Your task to perform on an android device: install app "DoorDash - Food Delivery" Image 0: 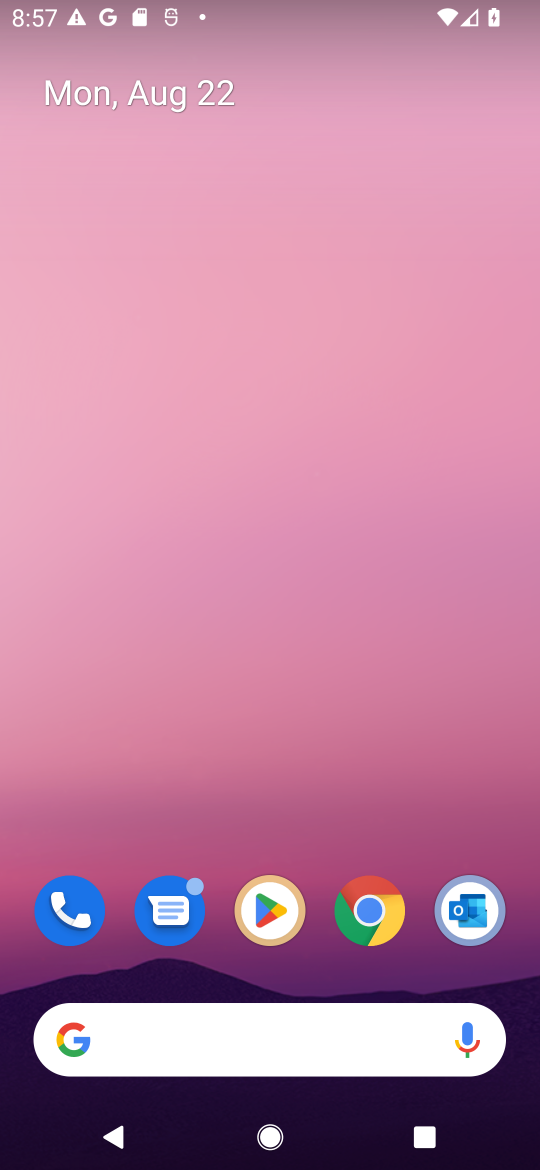
Step 0: click (263, 922)
Your task to perform on an android device: install app "DoorDash - Food Delivery" Image 1: 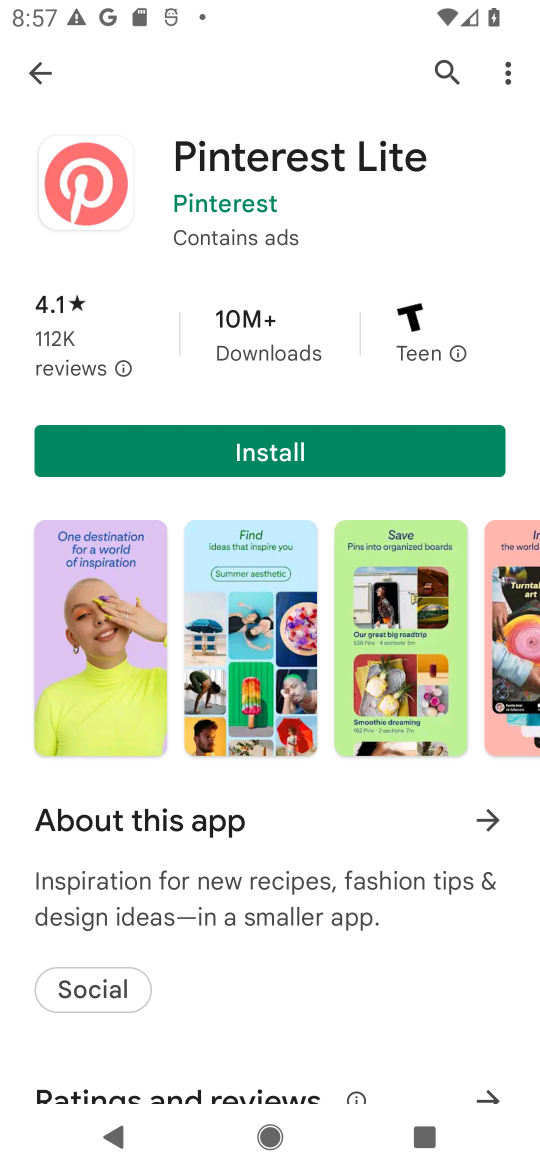
Step 1: click (447, 78)
Your task to perform on an android device: install app "DoorDash - Food Delivery" Image 2: 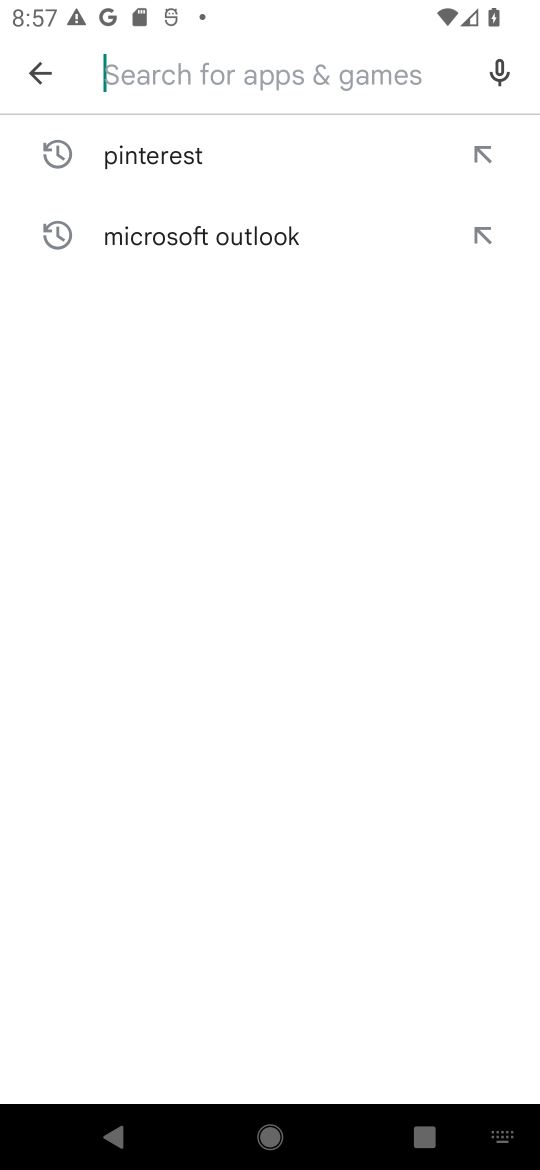
Step 2: type "DoorDash - Food Delivery"
Your task to perform on an android device: install app "DoorDash - Food Delivery" Image 3: 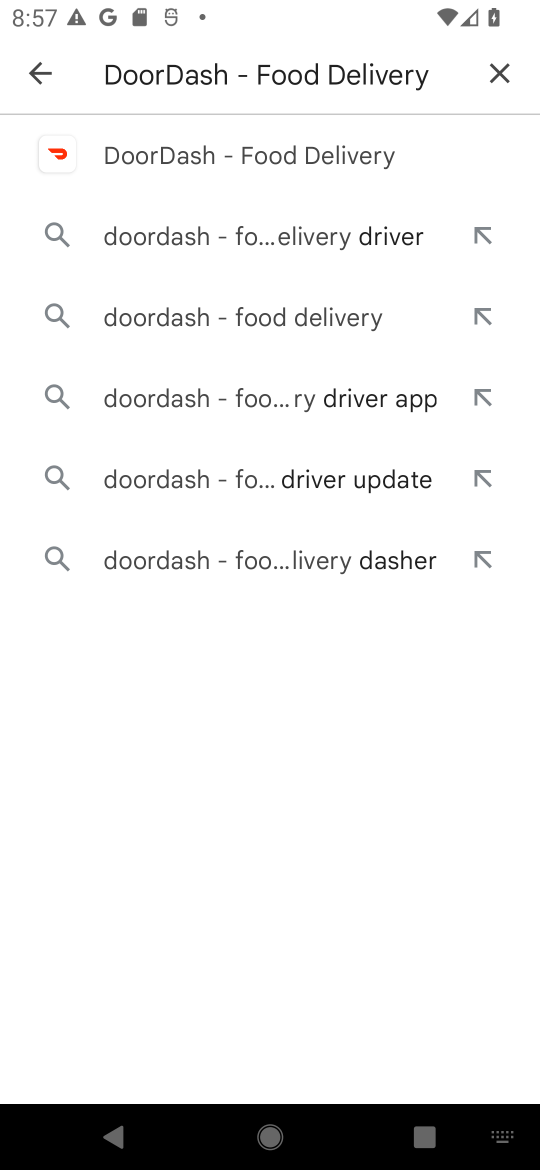
Step 3: click (287, 159)
Your task to perform on an android device: install app "DoorDash - Food Delivery" Image 4: 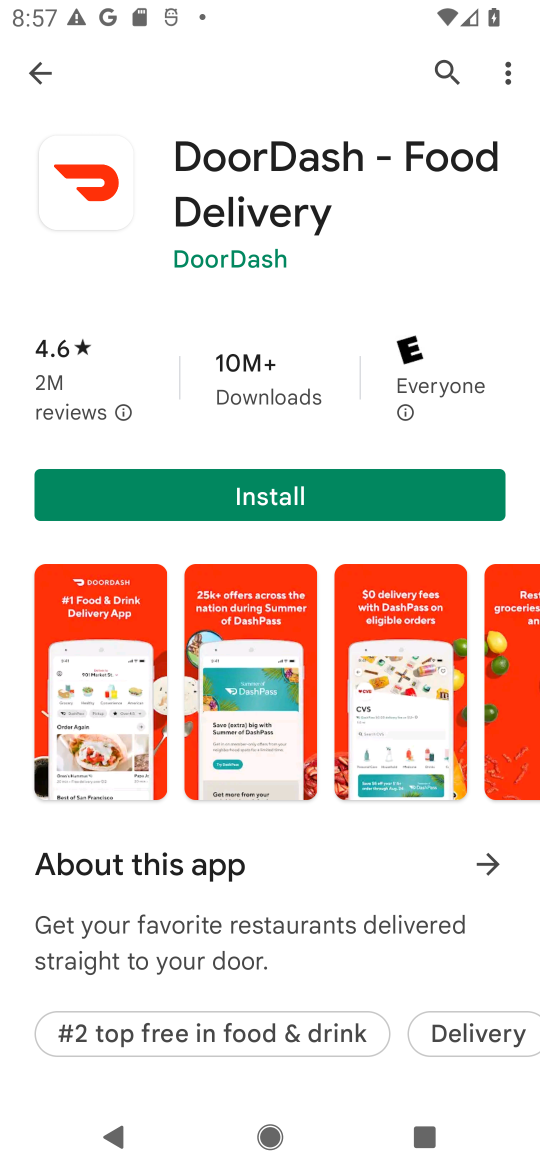
Step 4: click (266, 504)
Your task to perform on an android device: install app "DoorDash - Food Delivery" Image 5: 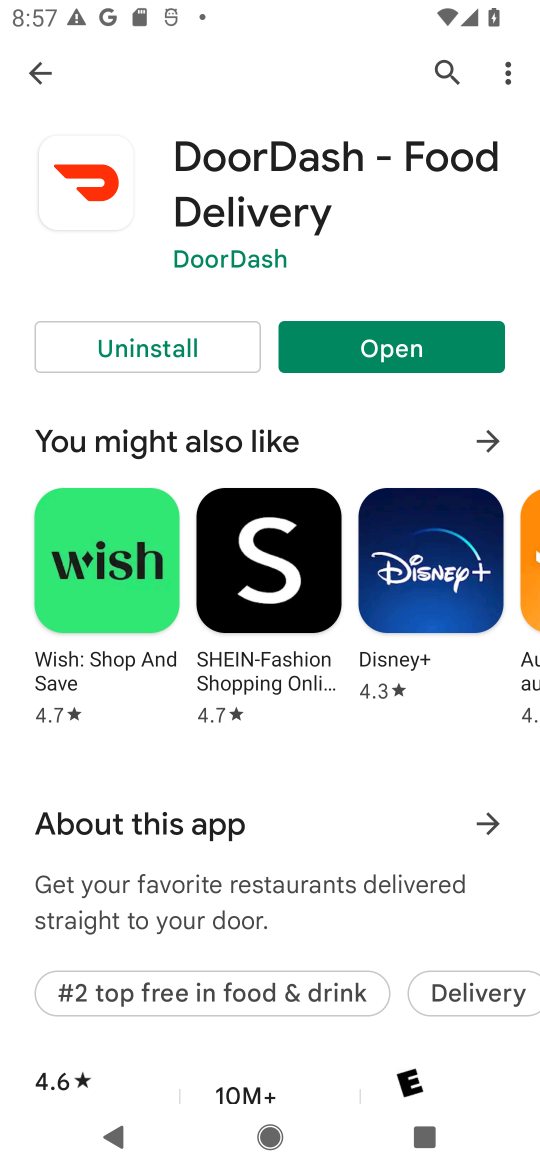
Step 5: task complete